Your task to perform on an android device: Open Wikipedia Image 0: 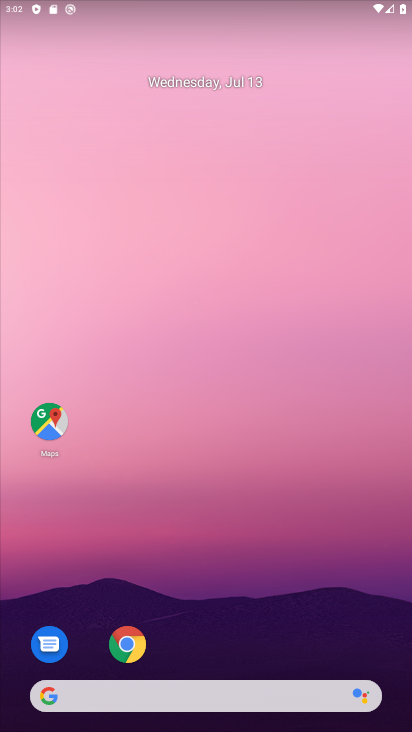
Step 0: drag from (211, 671) to (189, 103)
Your task to perform on an android device: Open Wikipedia Image 1: 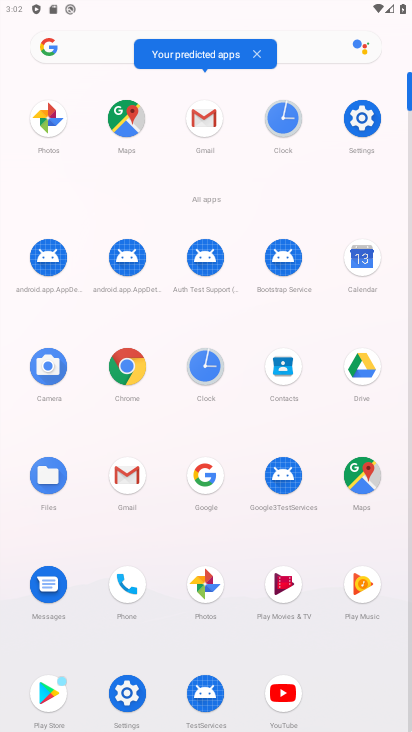
Step 1: click (137, 365)
Your task to perform on an android device: Open Wikipedia Image 2: 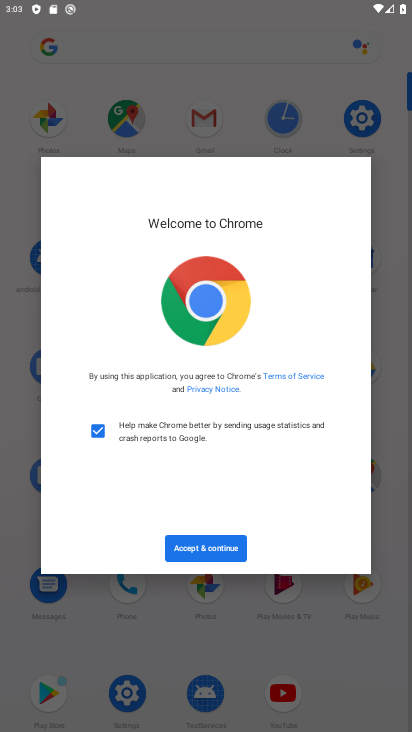
Step 2: click (212, 559)
Your task to perform on an android device: Open Wikipedia Image 3: 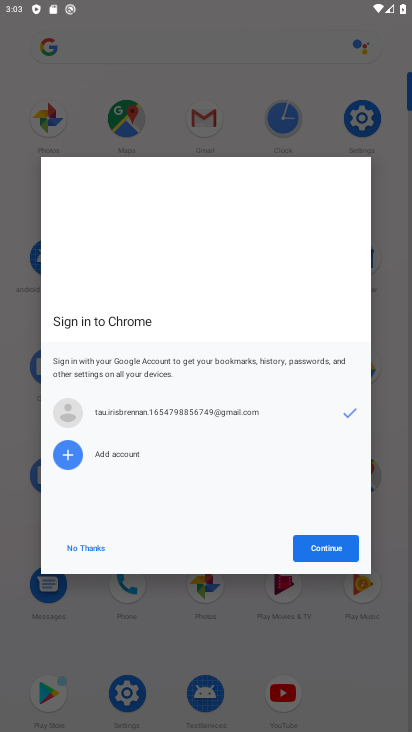
Step 3: click (344, 544)
Your task to perform on an android device: Open Wikipedia Image 4: 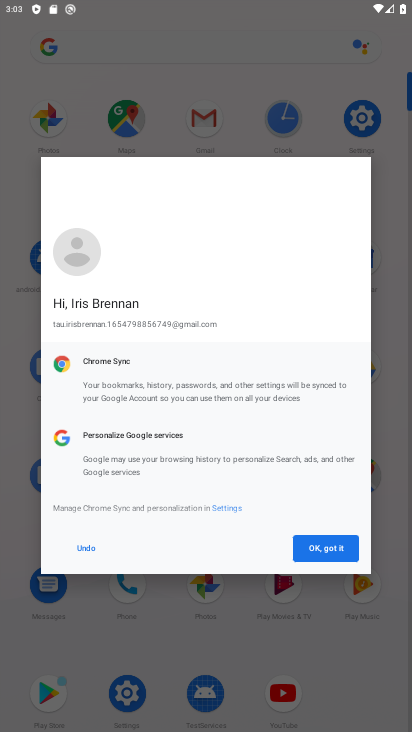
Step 4: click (340, 551)
Your task to perform on an android device: Open Wikipedia Image 5: 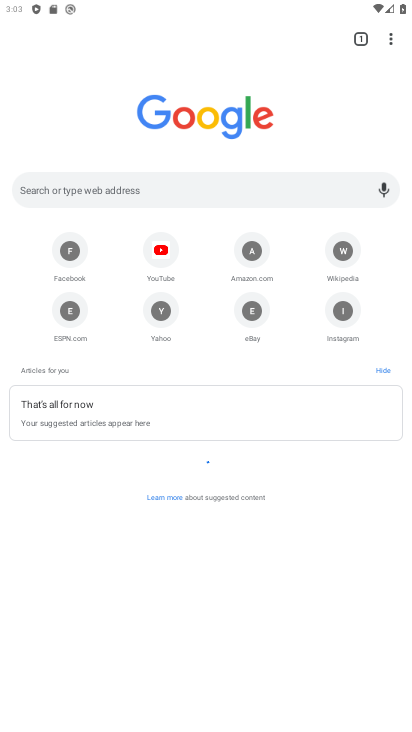
Step 5: click (344, 255)
Your task to perform on an android device: Open Wikipedia Image 6: 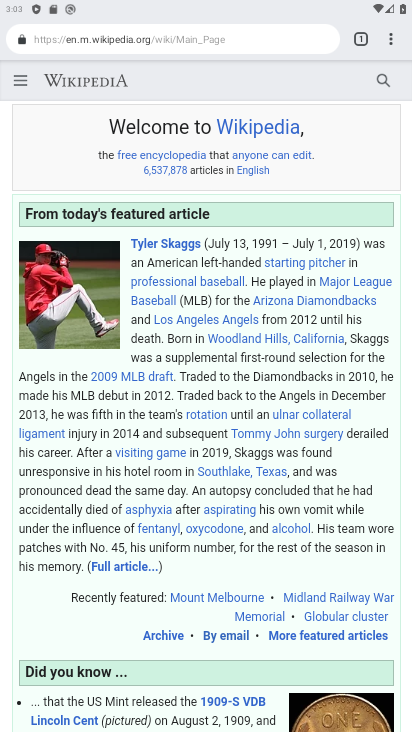
Step 6: task complete